Your task to perform on an android device: toggle notifications settings in the gmail app Image 0: 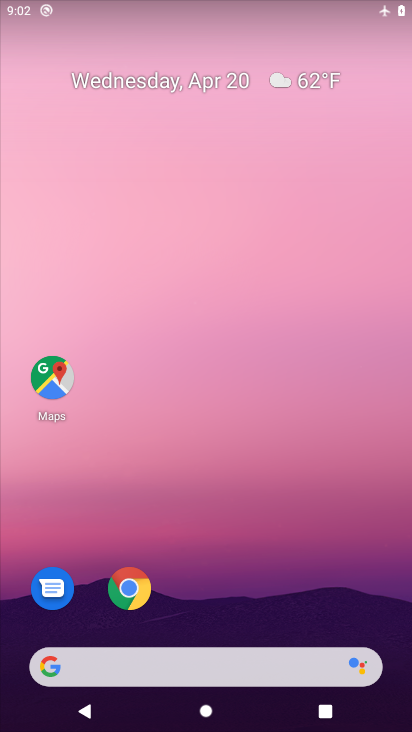
Step 0: drag from (217, 10) to (260, 637)
Your task to perform on an android device: toggle notifications settings in the gmail app Image 1: 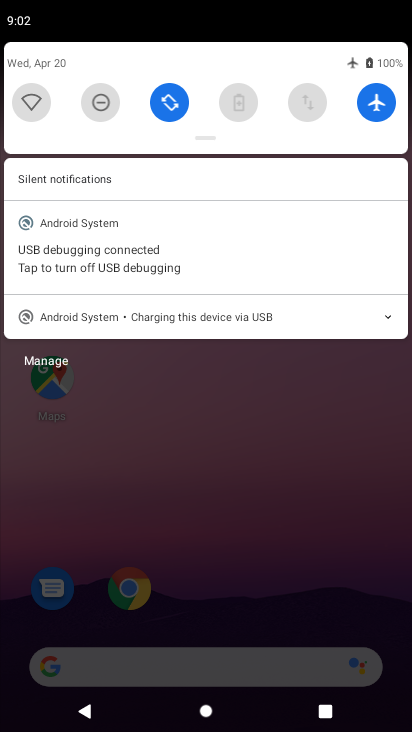
Step 1: click (100, 98)
Your task to perform on an android device: toggle notifications settings in the gmail app Image 2: 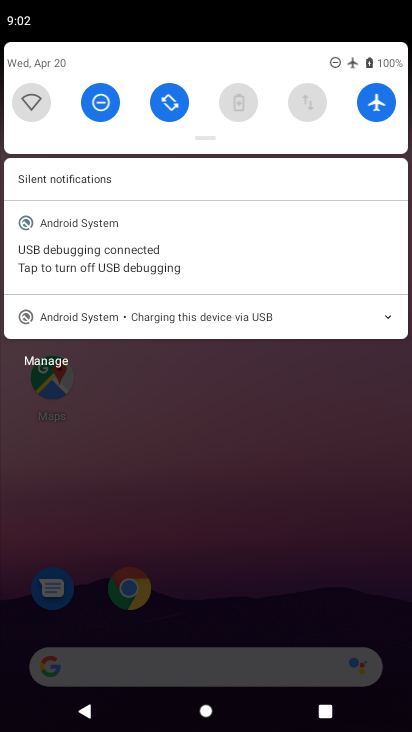
Step 2: task complete